Your task to perform on an android device: Show the shopping cart on amazon. Add dell xps to the cart on amazon Image 0: 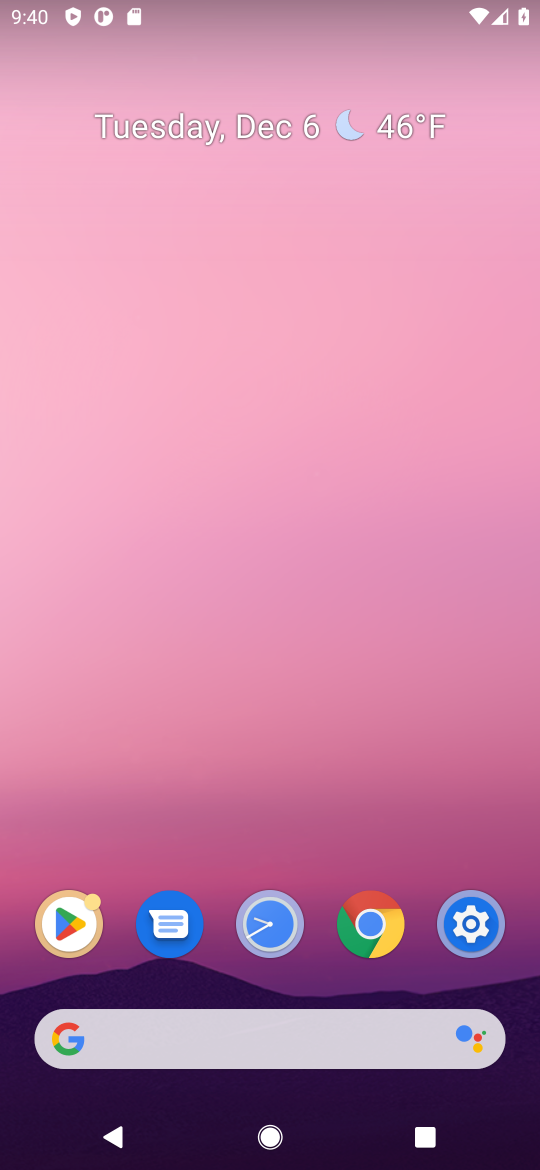
Step 0: click (302, 1052)
Your task to perform on an android device: Show the shopping cart on amazon. Add dell xps to the cart on amazon Image 1: 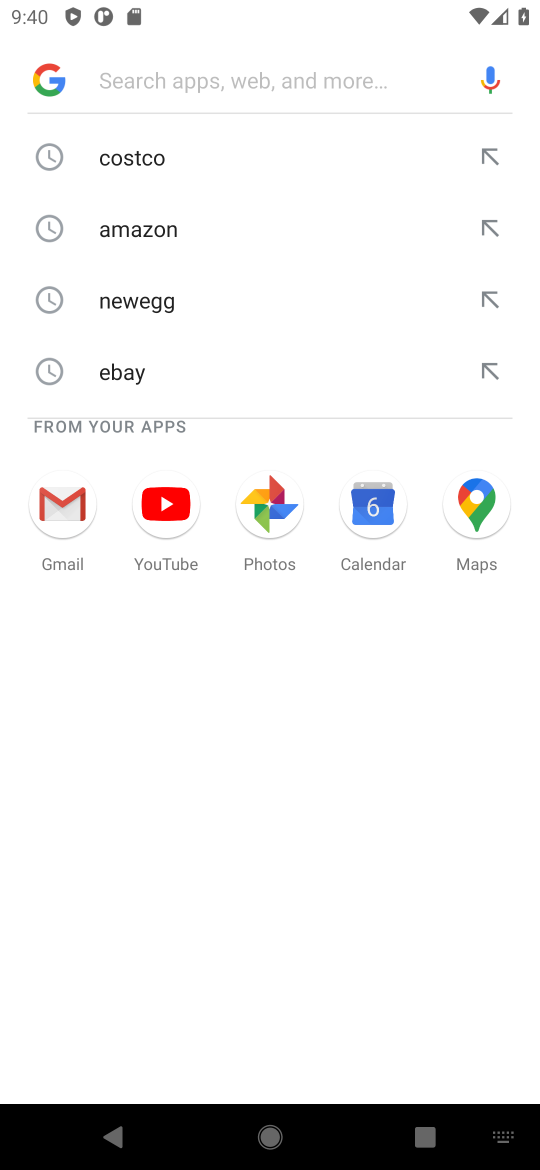
Step 1: click (190, 210)
Your task to perform on an android device: Show the shopping cart on amazon. Add dell xps to the cart on amazon Image 2: 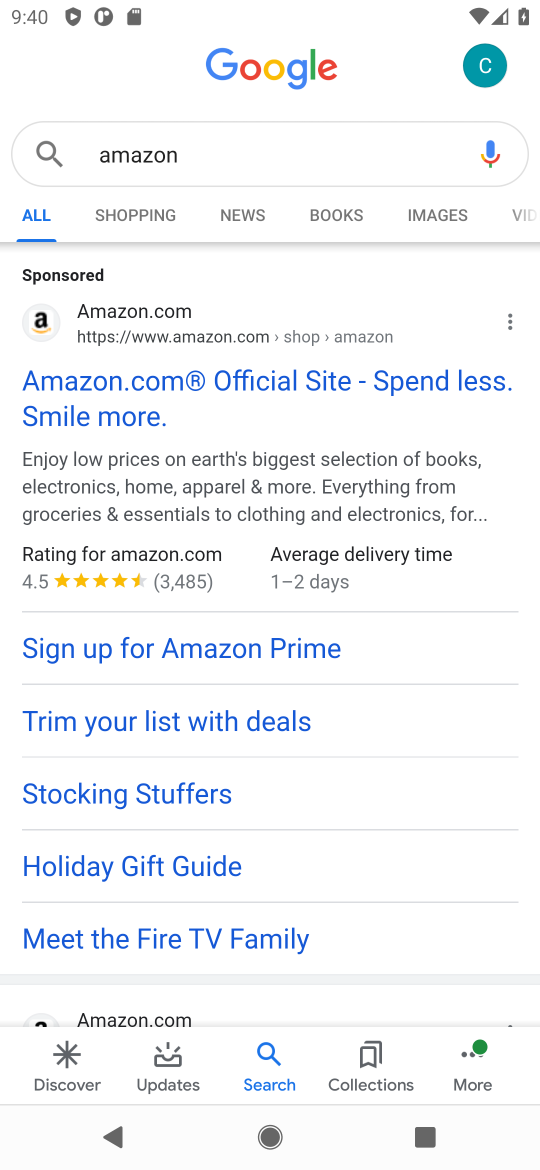
Step 2: click (250, 390)
Your task to perform on an android device: Show the shopping cart on amazon. Add dell xps to the cart on amazon Image 3: 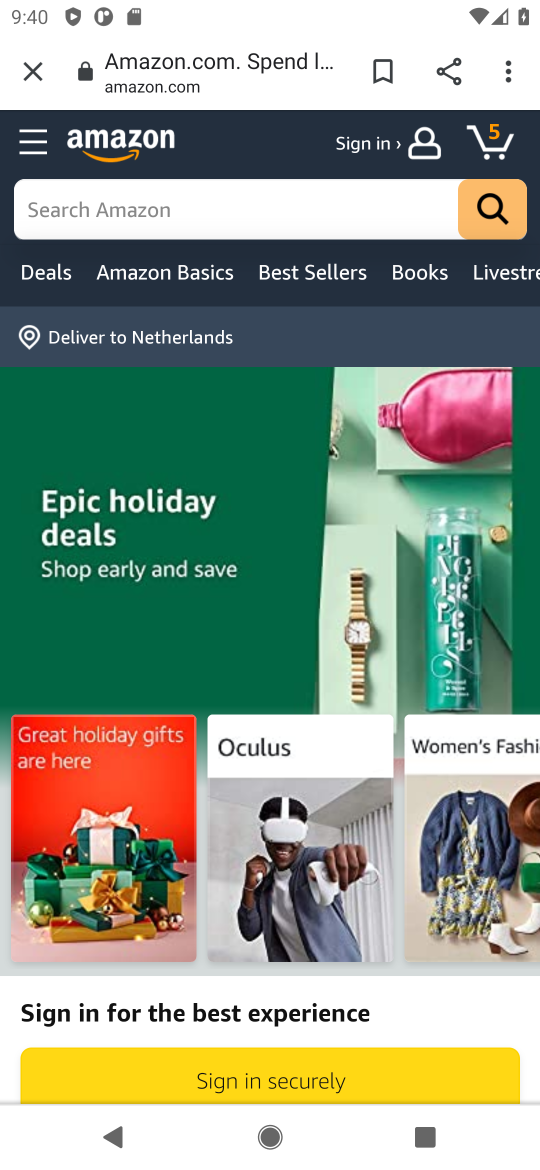
Step 3: click (191, 214)
Your task to perform on an android device: Show the shopping cart on amazon. Add dell xps to the cart on amazon Image 4: 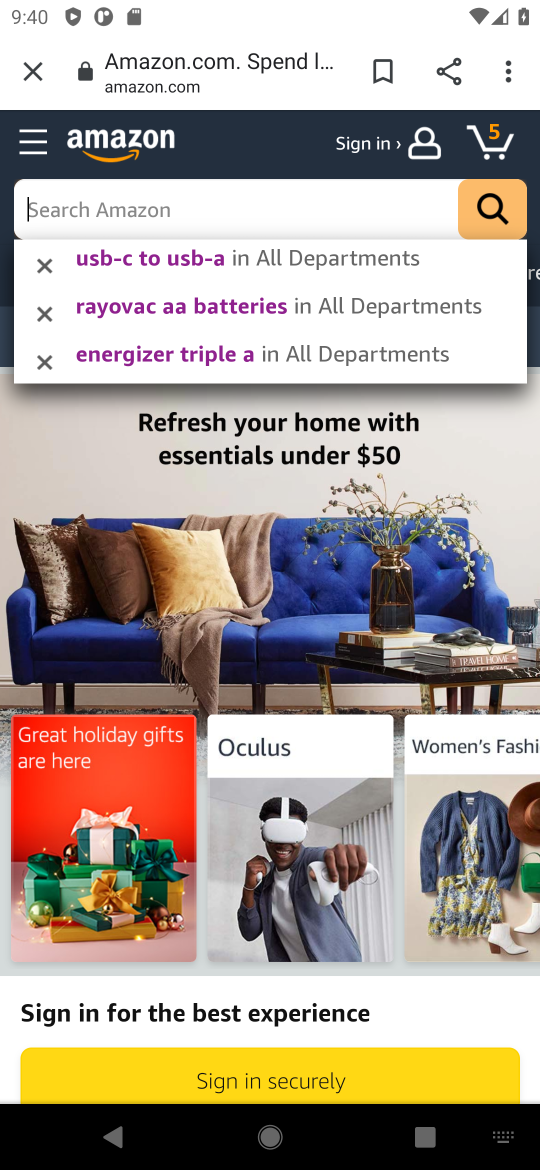
Step 4: type "dell xps"
Your task to perform on an android device: Show the shopping cart on amazon. Add dell xps to the cart on amazon Image 5: 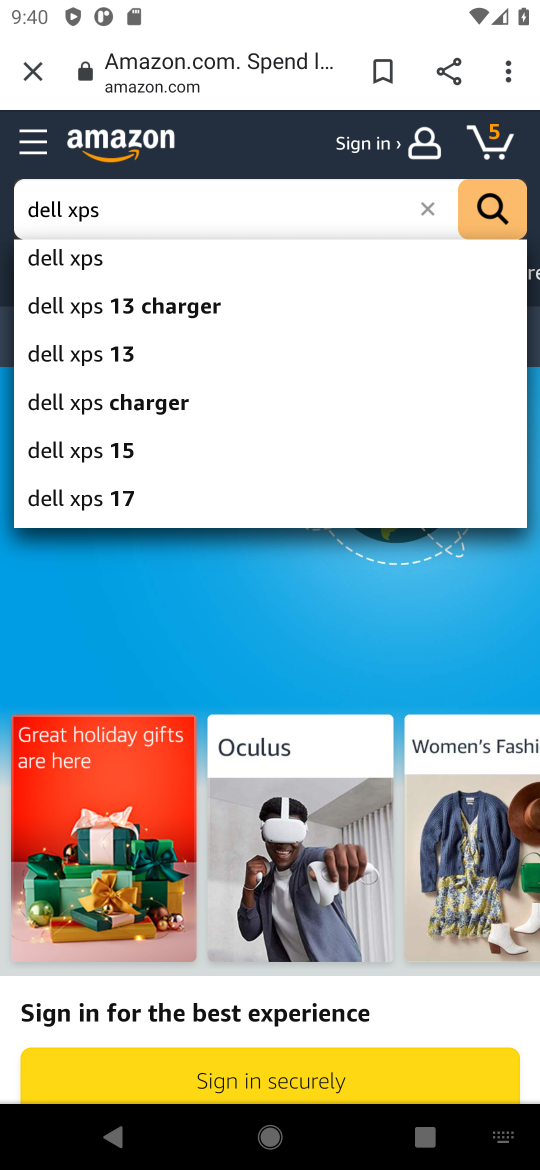
Step 5: click (487, 233)
Your task to perform on an android device: Show the shopping cart on amazon. Add dell xps to the cart on amazon Image 6: 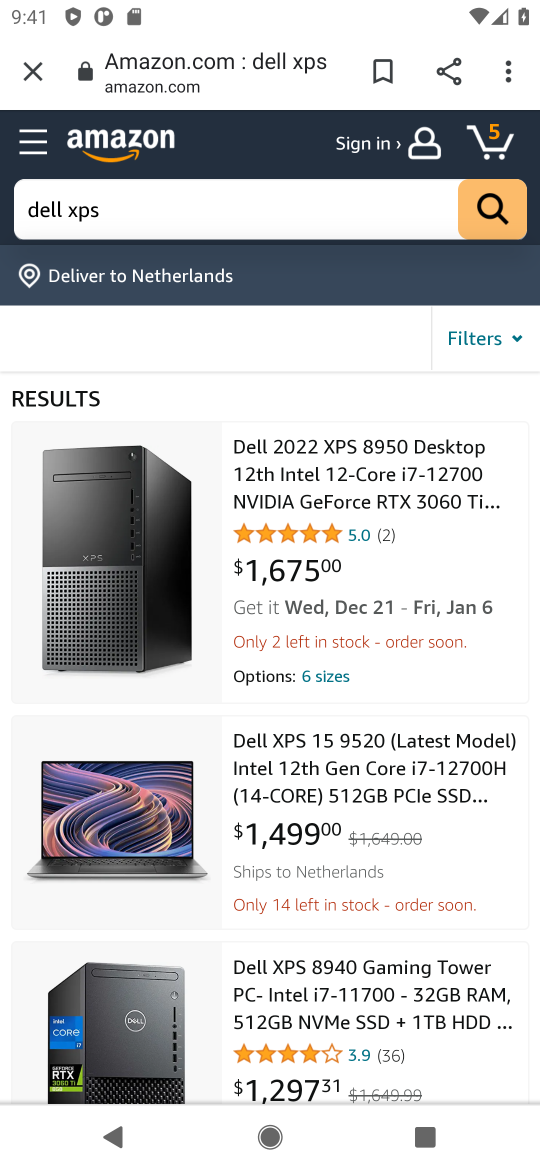
Step 6: task complete